Your task to perform on an android device: change notification settings in the gmail app Image 0: 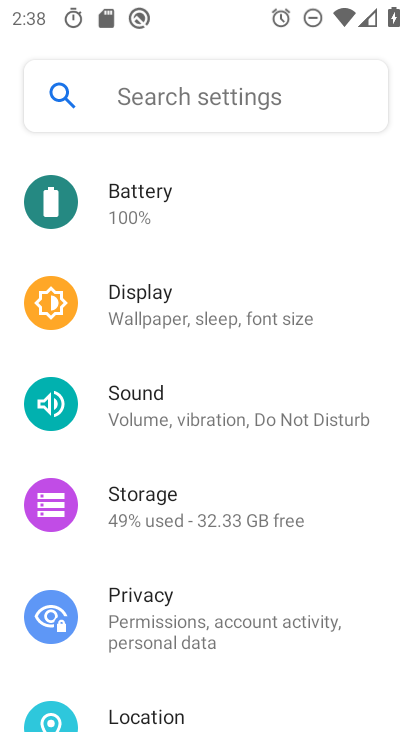
Step 0: press home button
Your task to perform on an android device: change notification settings in the gmail app Image 1: 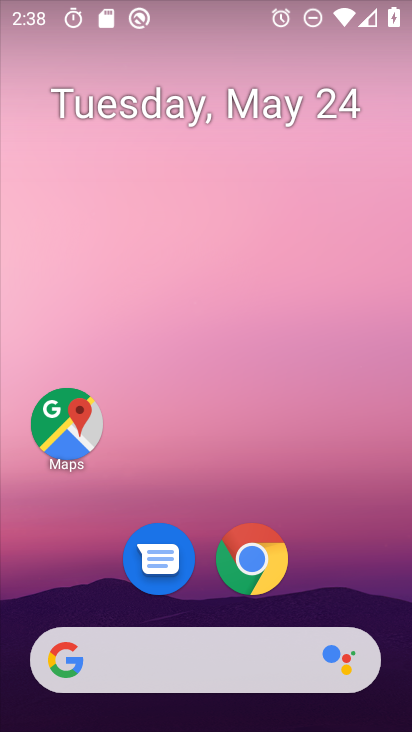
Step 1: drag from (401, 707) to (363, 193)
Your task to perform on an android device: change notification settings in the gmail app Image 2: 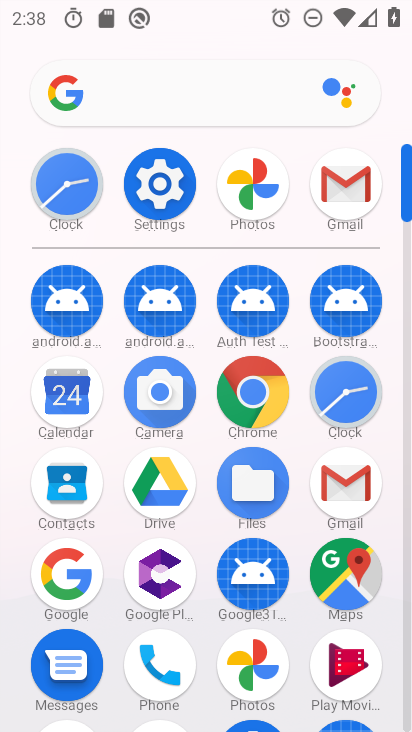
Step 2: click (340, 484)
Your task to perform on an android device: change notification settings in the gmail app Image 3: 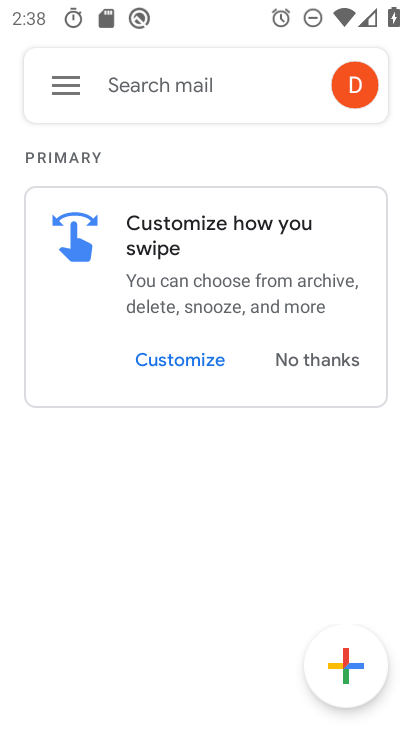
Step 3: click (59, 83)
Your task to perform on an android device: change notification settings in the gmail app Image 4: 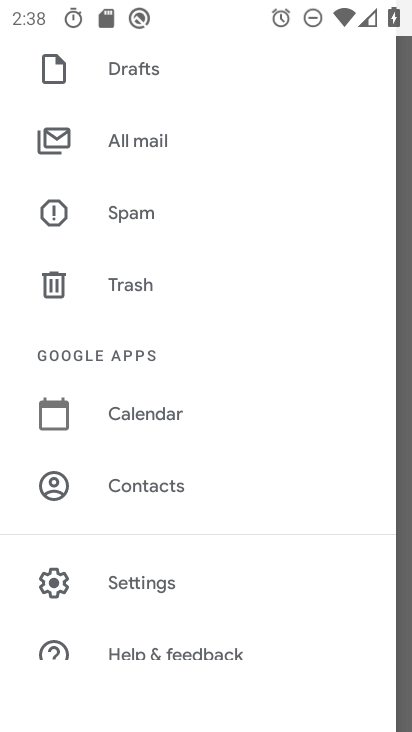
Step 4: click (150, 580)
Your task to perform on an android device: change notification settings in the gmail app Image 5: 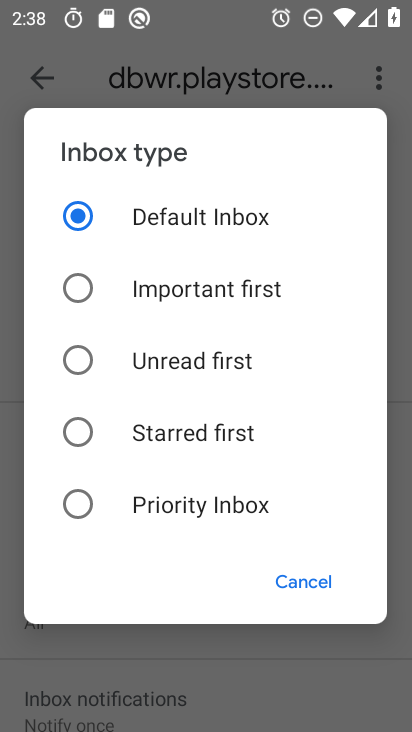
Step 5: click (298, 575)
Your task to perform on an android device: change notification settings in the gmail app Image 6: 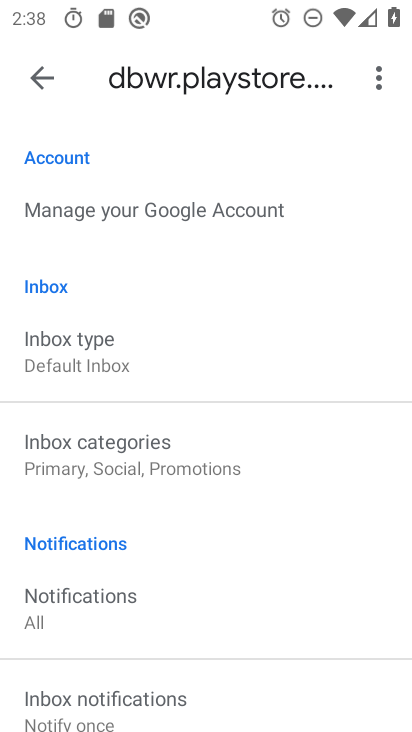
Step 6: click (42, 67)
Your task to perform on an android device: change notification settings in the gmail app Image 7: 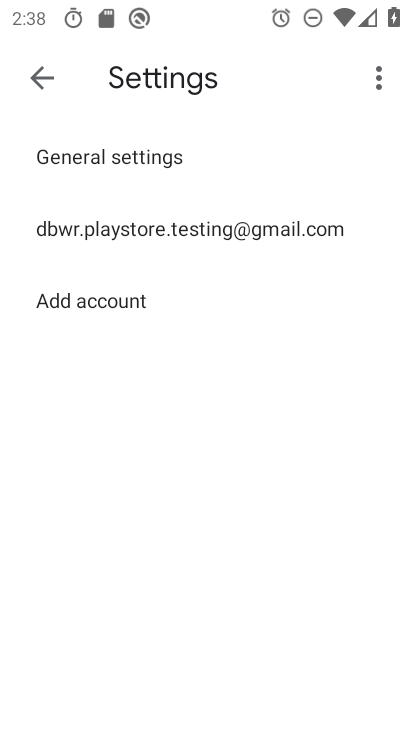
Step 7: click (114, 154)
Your task to perform on an android device: change notification settings in the gmail app Image 8: 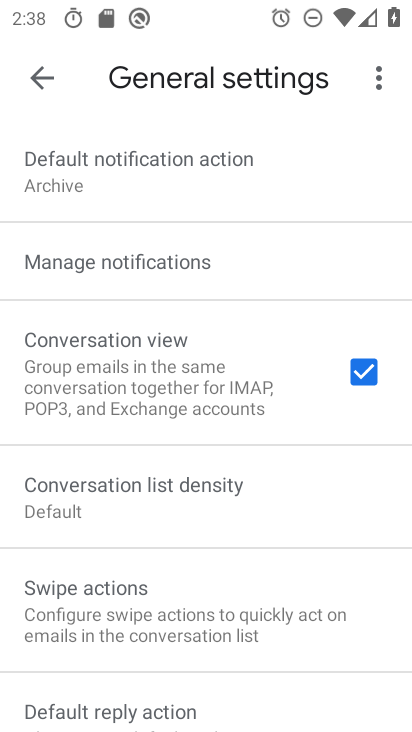
Step 8: click (107, 259)
Your task to perform on an android device: change notification settings in the gmail app Image 9: 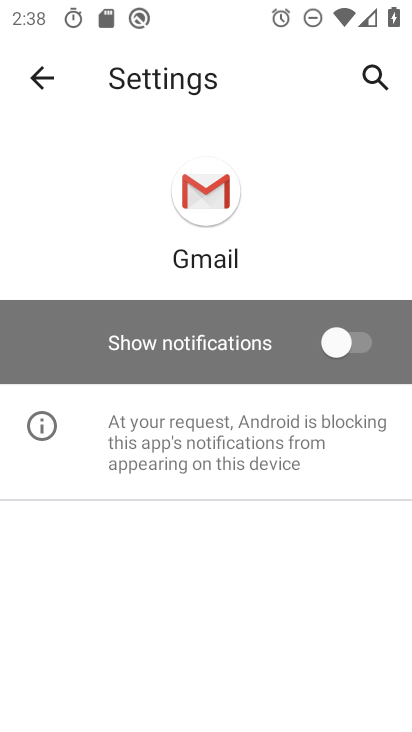
Step 9: click (364, 336)
Your task to perform on an android device: change notification settings in the gmail app Image 10: 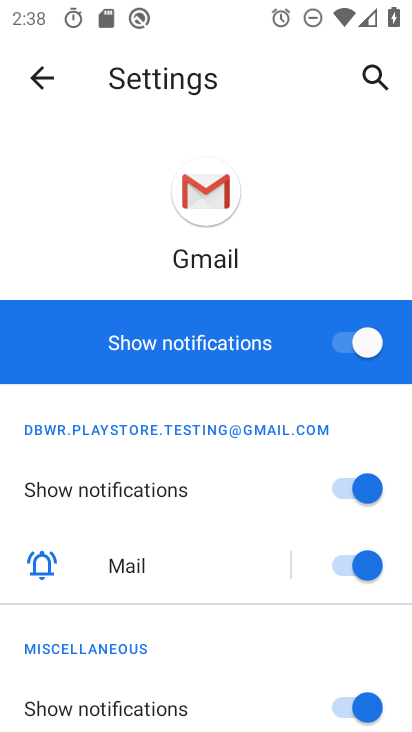
Step 10: task complete